Your task to perform on an android device: turn on showing notifications on the lock screen Image 0: 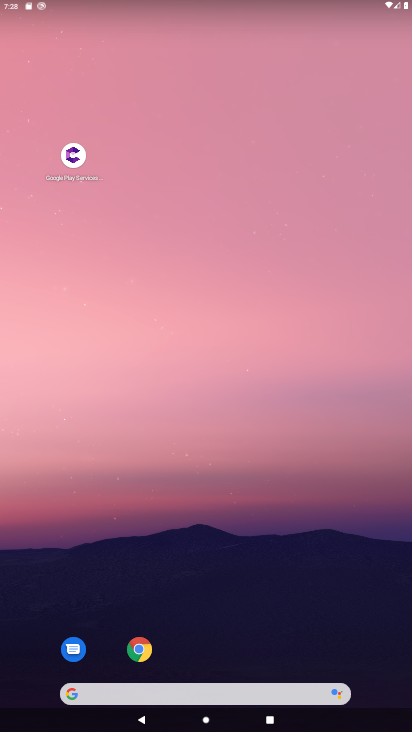
Step 0: drag from (399, 671) to (357, 175)
Your task to perform on an android device: turn on showing notifications on the lock screen Image 1: 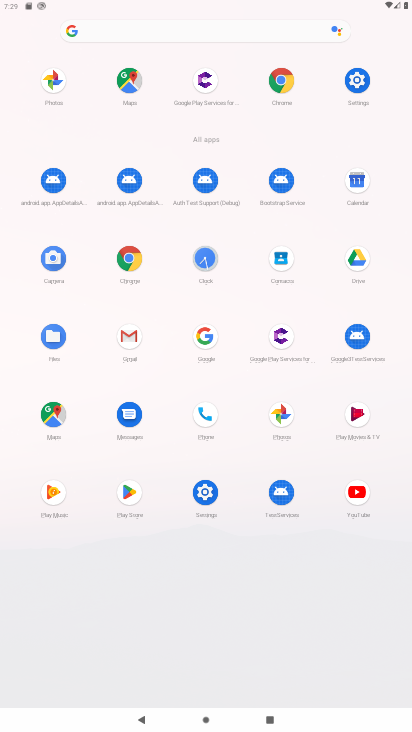
Step 1: click (352, 82)
Your task to perform on an android device: turn on showing notifications on the lock screen Image 2: 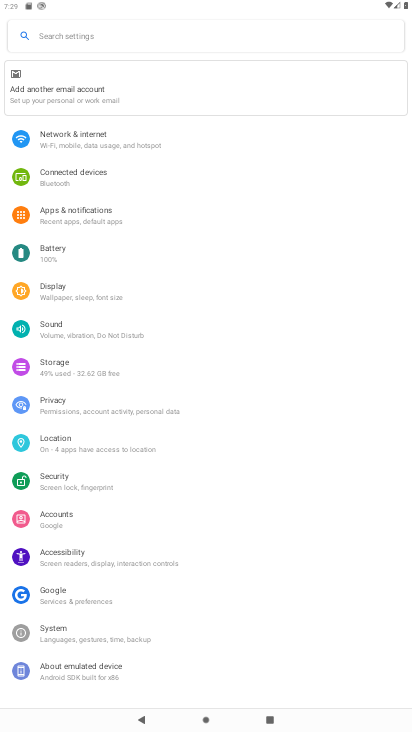
Step 2: click (57, 216)
Your task to perform on an android device: turn on showing notifications on the lock screen Image 3: 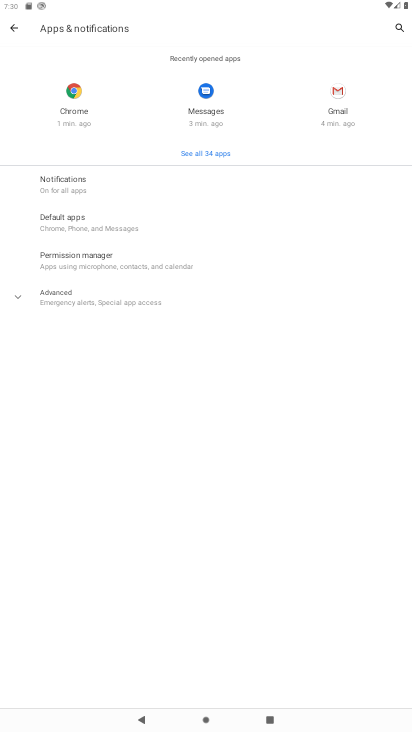
Step 3: click (49, 175)
Your task to perform on an android device: turn on showing notifications on the lock screen Image 4: 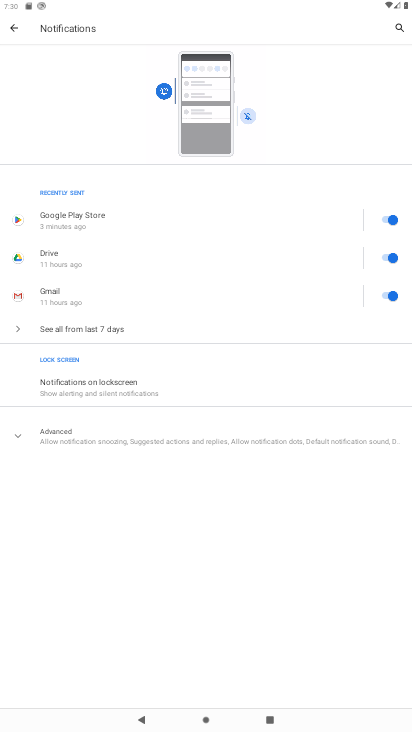
Step 4: click (20, 429)
Your task to perform on an android device: turn on showing notifications on the lock screen Image 5: 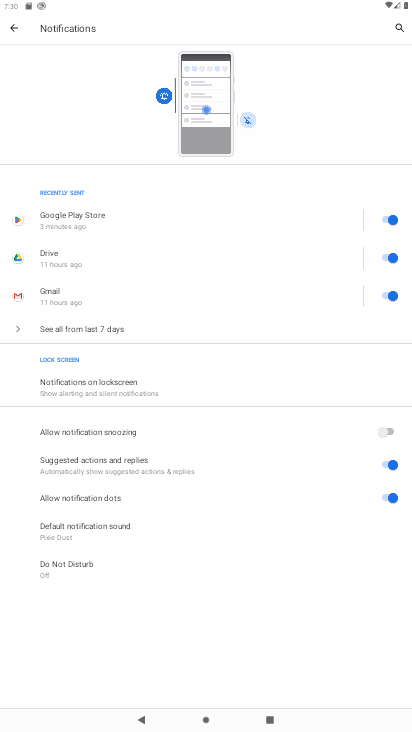
Step 5: click (97, 382)
Your task to perform on an android device: turn on showing notifications on the lock screen Image 6: 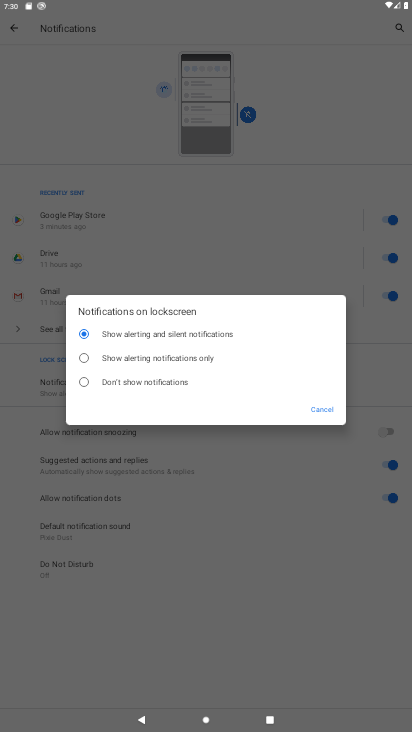
Step 6: task complete